Your task to perform on an android device: turn off wifi Image 0: 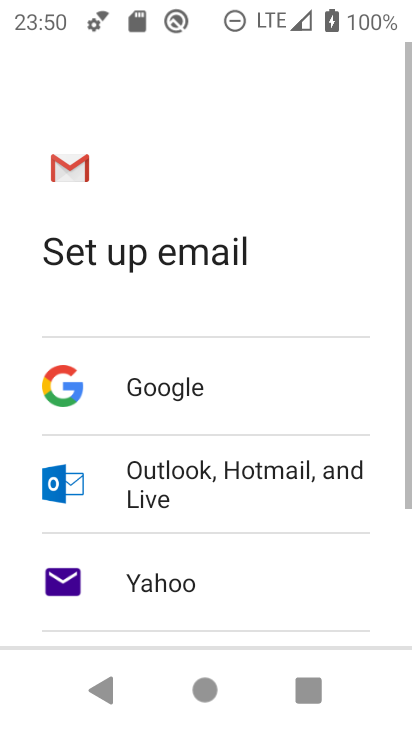
Step 0: press home button
Your task to perform on an android device: turn off wifi Image 1: 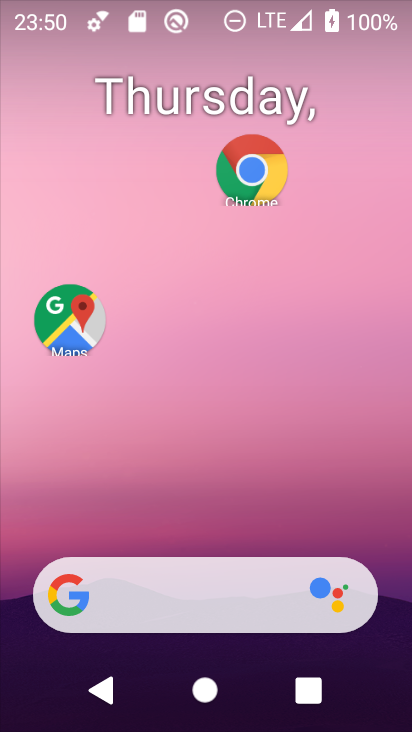
Step 1: drag from (206, 560) to (200, 271)
Your task to perform on an android device: turn off wifi Image 2: 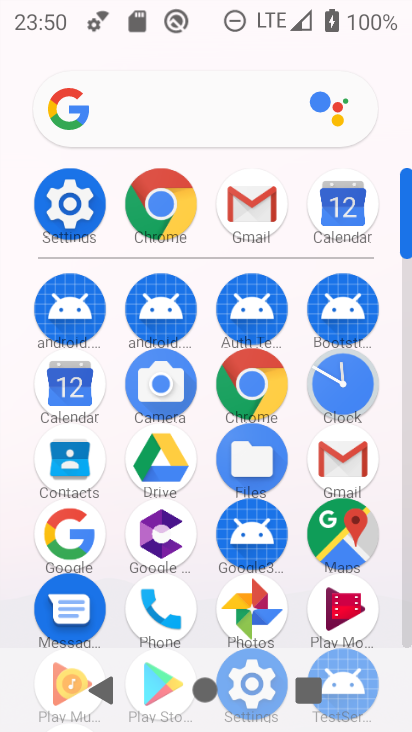
Step 2: click (68, 220)
Your task to perform on an android device: turn off wifi Image 3: 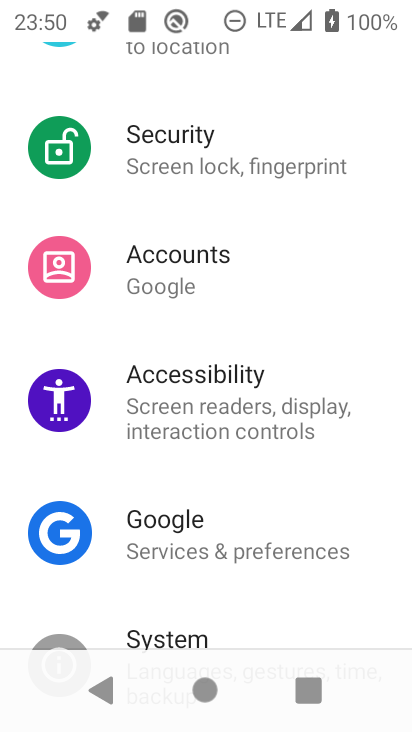
Step 3: drag from (276, 167) to (237, 514)
Your task to perform on an android device: turn off wifi Image 4: 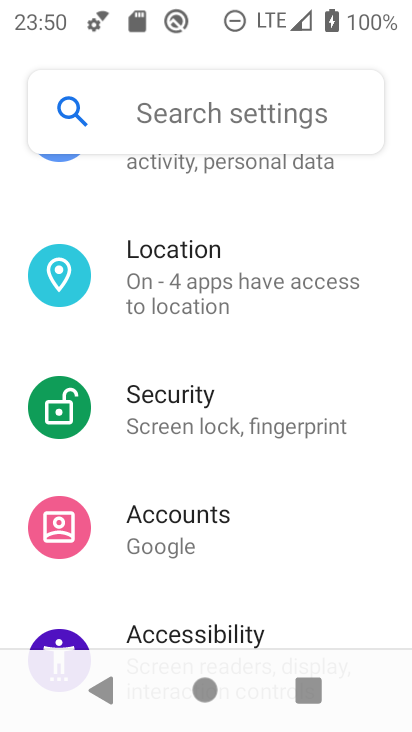
Step 4: drag from (192, 224) to (190, 485)
Your task to perform on an android device: turn off wifi Image 5: 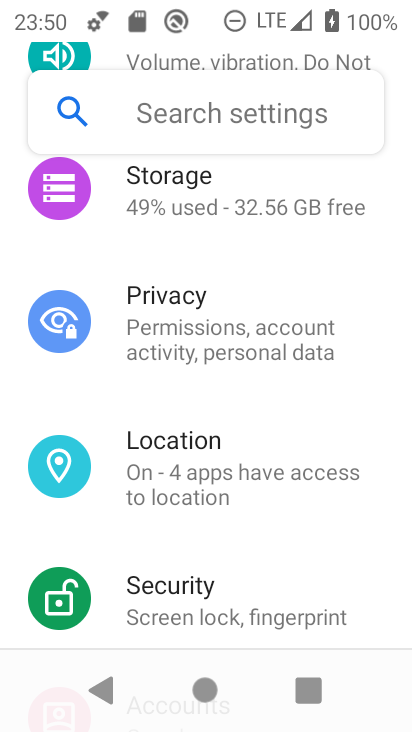
Step 5: drag from (196, 194) to (203, 505)
Your task to perform on an android device: turn off wifi Image 6: 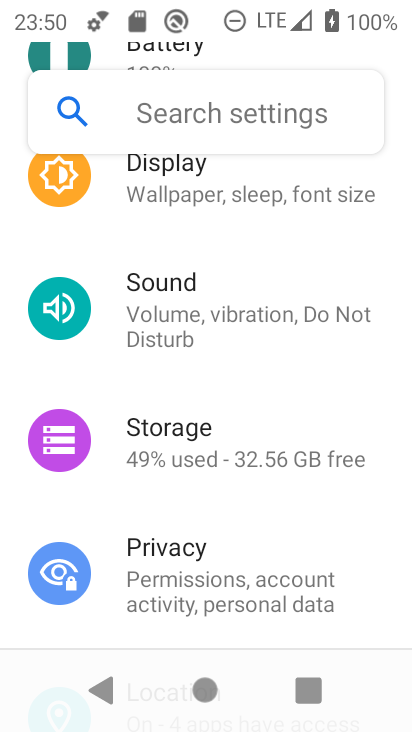
Step 6: drag from (179, 170) to (183, 522)
Your task to perform on an android device: turn off wifi Image 7: 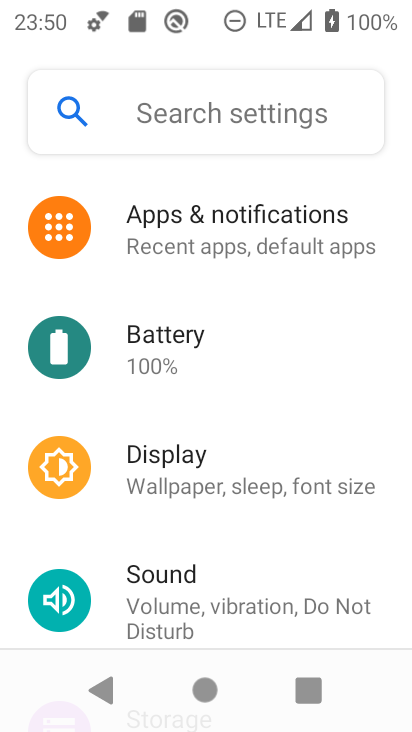
Step 7: drag from (207, 186) to (208, 606)
Your task to perform on an android device: turn off wifi Image 8: 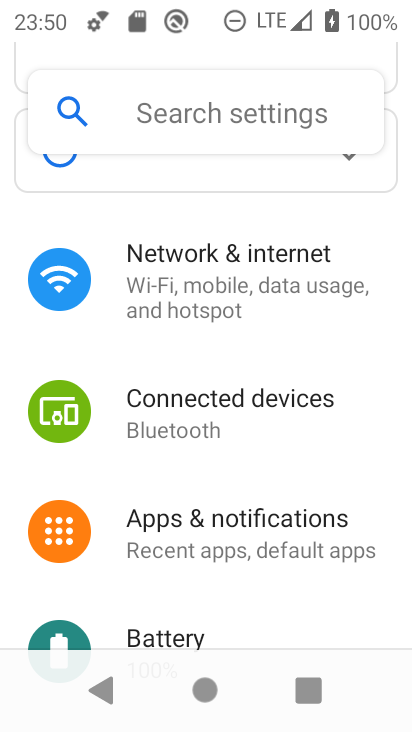
Step 8: click (153, 279)
Your task to perform on an android device: turn off wifi Image 9: 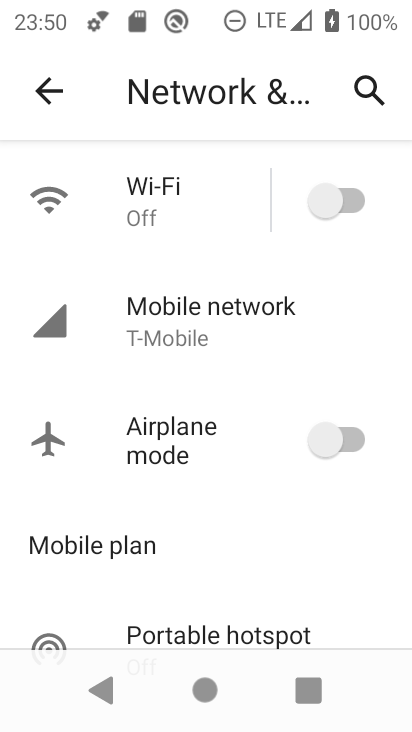
Step 9: task complete